Your task to perform on an android device: Open the stopwatch Image 0: 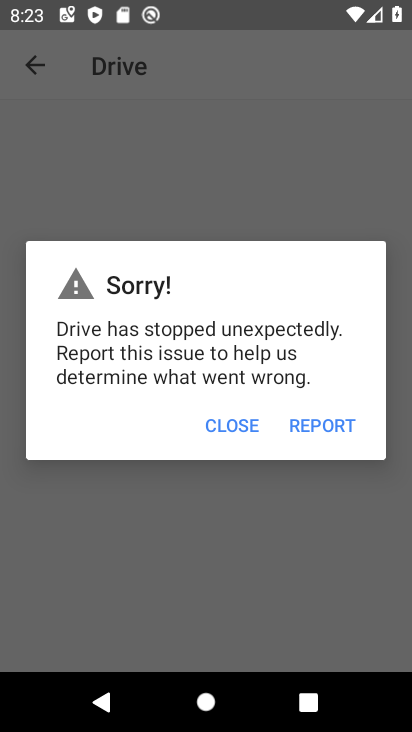
Step 0: press home button
Your task to perform on an android device: Open the stopwatch Image 1: 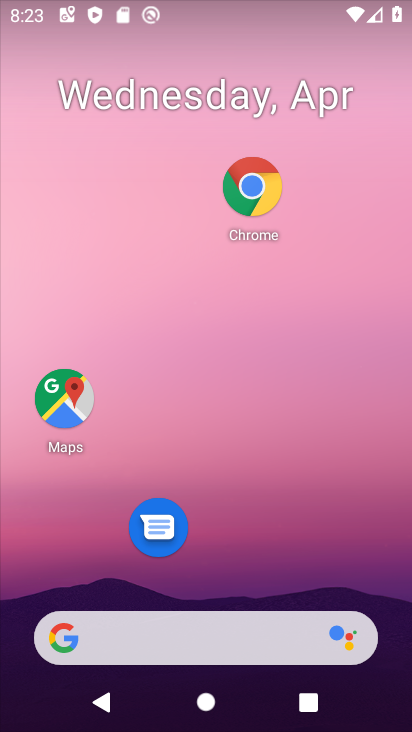
Step 1: drag from (210, 598) to (219, 140)
Your task to perform on an android device: Open the stopwatch Image 2: 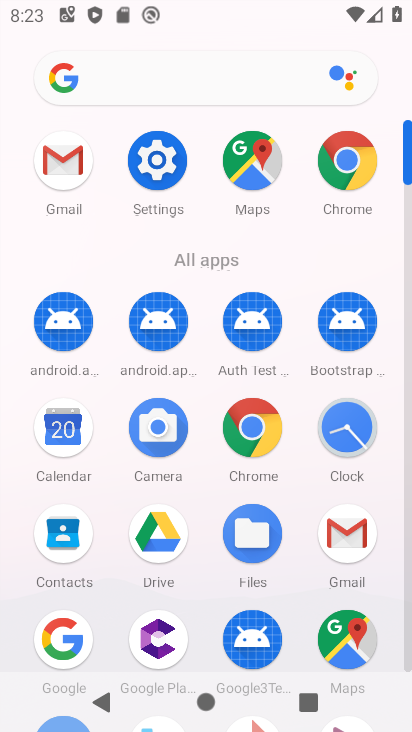
Step 2: click (344, 430)
Your task to perform on an android device: Open the stopwatch Image 3: 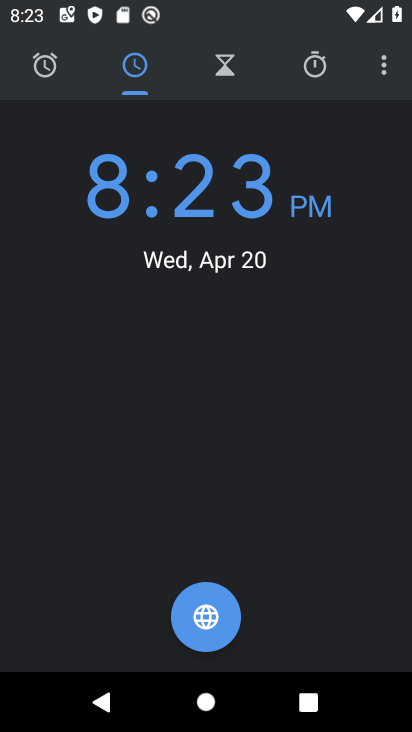
Step 3: click (237, 66)
Your task to perform on an android device: Open the stopwatch Image 4: 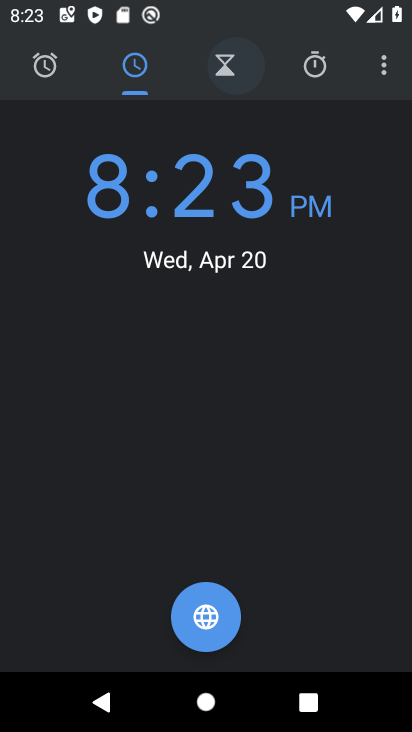
Step 4: click (237, 66)
Your task to perform on an android device: Open the stopwatch Image 5: 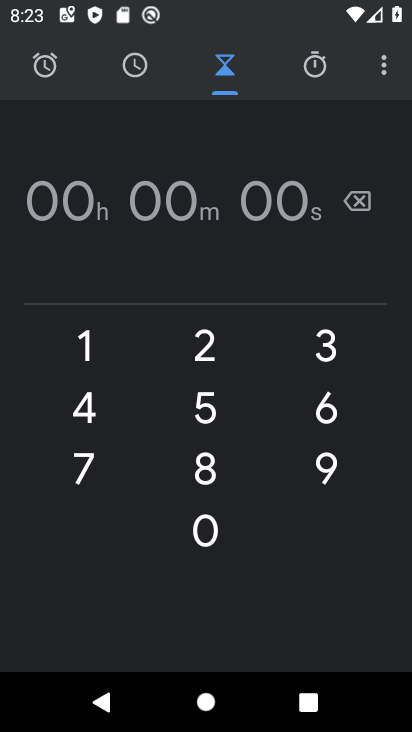
Step 5: click (305, 57)
Your task to perform on an android device: Open the stopwatch Image 6: 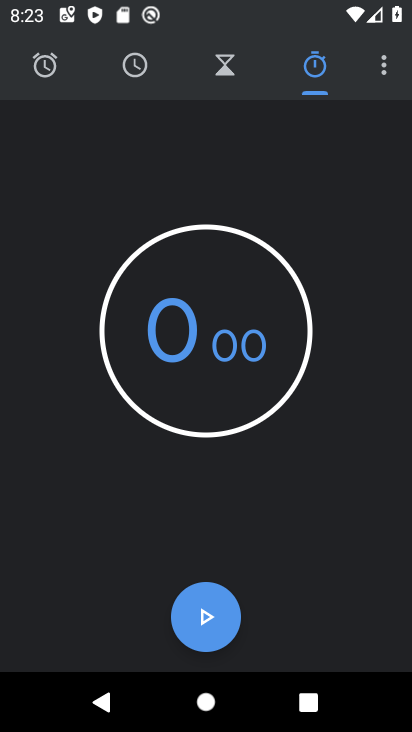
Step 6: click (197, 622)
Your task to perform on an android device: Open the stopwatch Image 7: 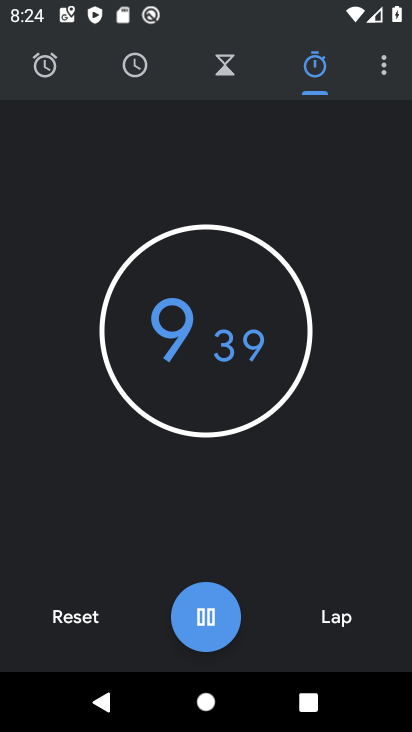
Step 7: click (178, 629)
Your task to perform on an android device: Open the stopwatch Image 8: 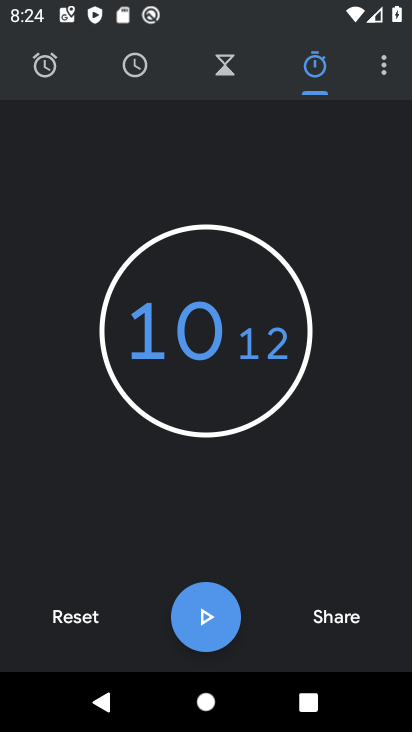
Step 8: click (205, 608)
Your task to perform on an android device: Open the stopwatch Image 9: 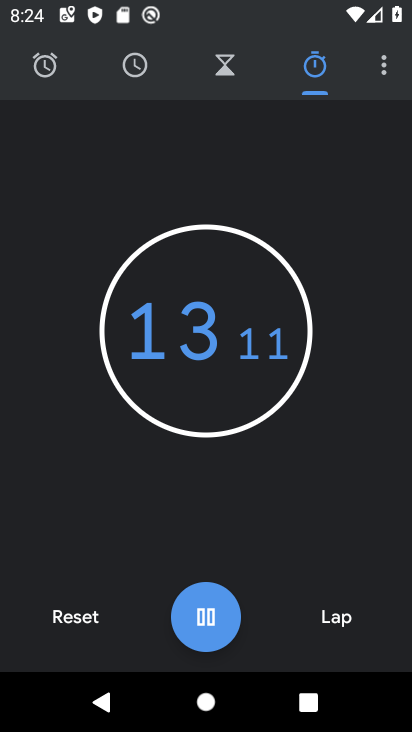
Step 9: click (205, 609)
Your task to perform on an android device: Open the stopwatch Image 10: 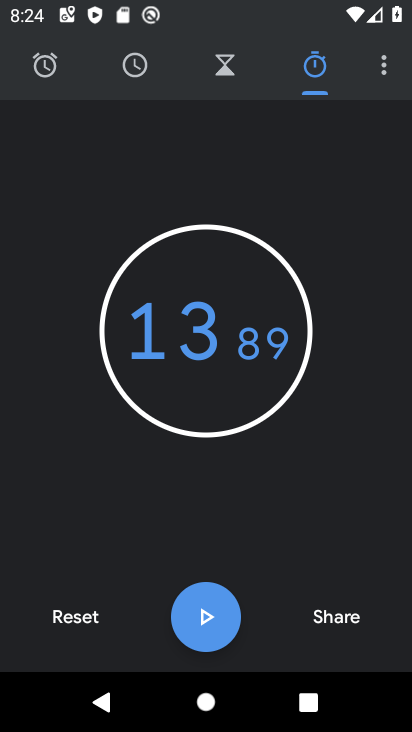
Step 10: task complete